Your task to perform on an android device: open app "PUBG MOBILE" (install if not already installed), go to login, and select forgot password Image 0: 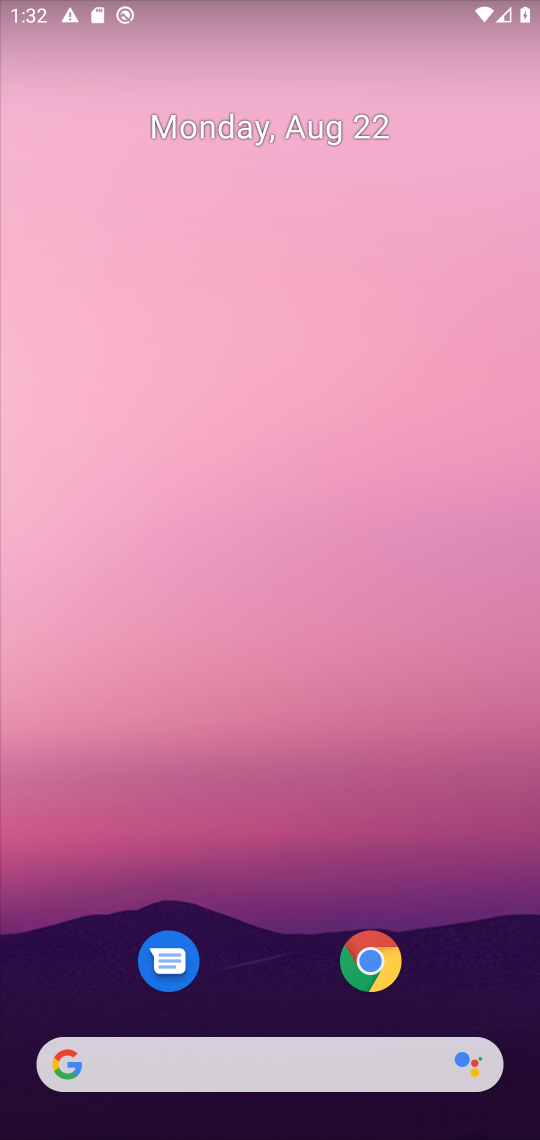
Step 0: press home button
Your task to perform on an android device: open app "PUBG MOBILE" (install if not already installed), go to login, and select forgot password Image 1: 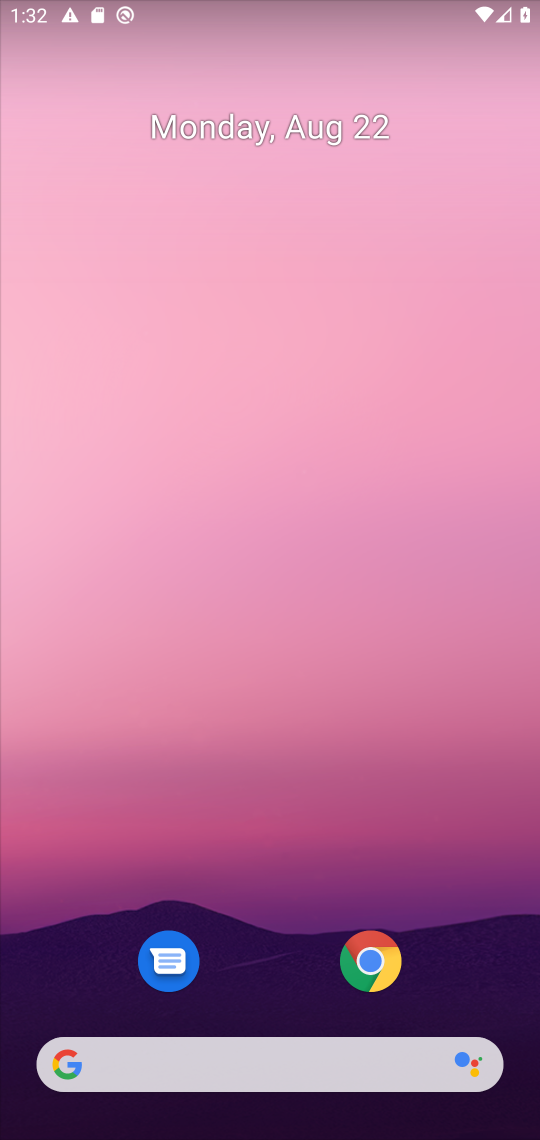
Step 1: drag from (460, 951) to (466, 142)
Your task to perform on an android device: open app "PUBG MOBILE" (install if not already installed), go to login, and select forgot password Image 2: 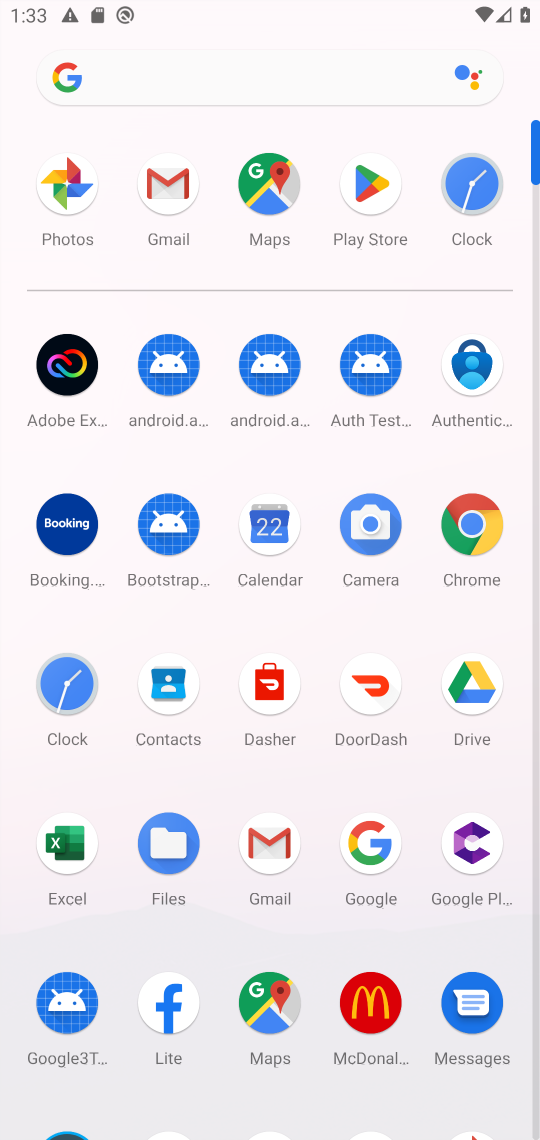
Step 2: click (373, 189)
Your task to perform on an android device: open app "PUBG MOBILE" (install if not already installed), go to login, and select forgot password Image 3: 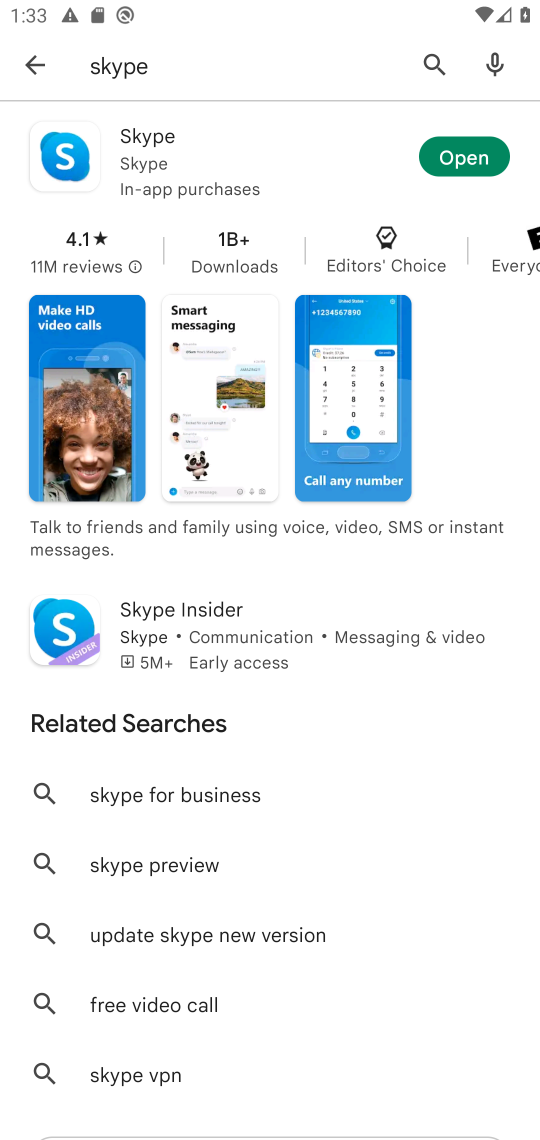
Step 3: press back button
Your task to perform on an android device: open app "PUBG MOBILE" (install if not already installed), go to login, and select forgot password Image 4: 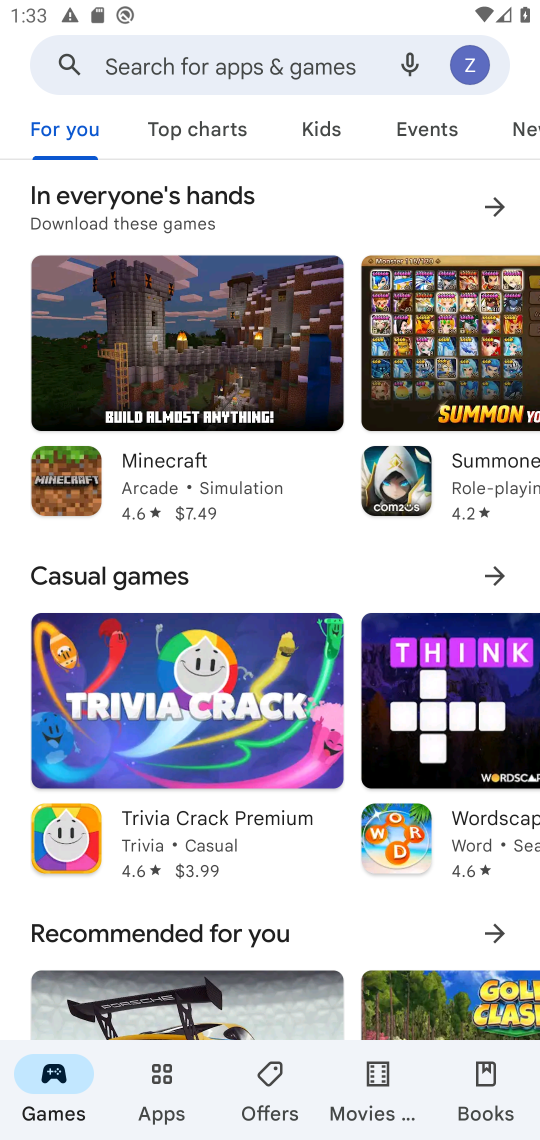
Step 4: click (270, 70)
Your task to perform on an android device: open app "PUBG MOBILE" (install if not already installed), go to login, and select forgot password Image 5: 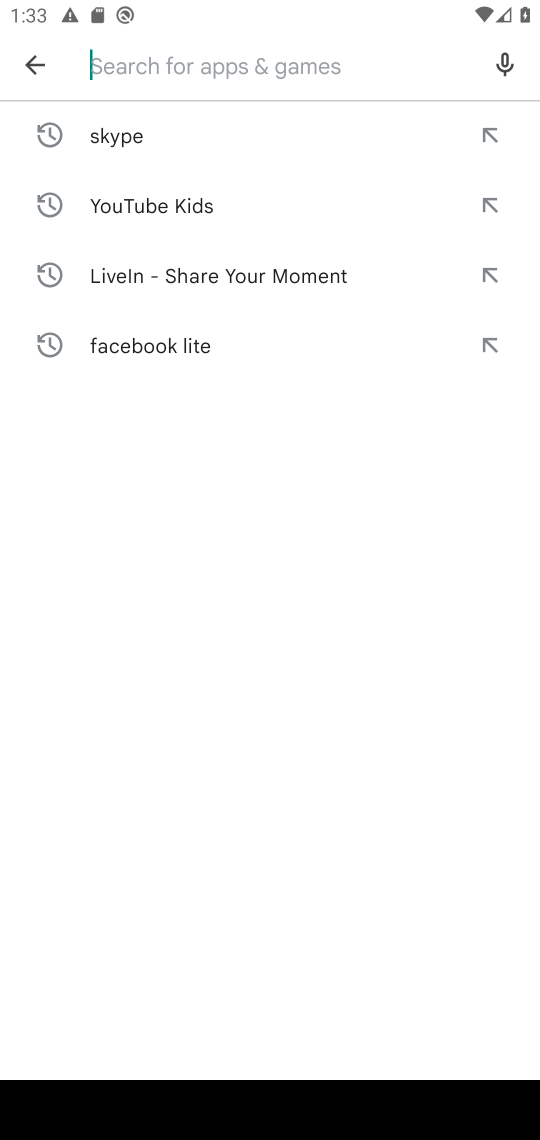
Step 5: type "PUBG MOBILE"
Your task to perform on an android device: open app "PUBG MOBILE" (install if not already installed), go to login, and select forgot password Image 6: 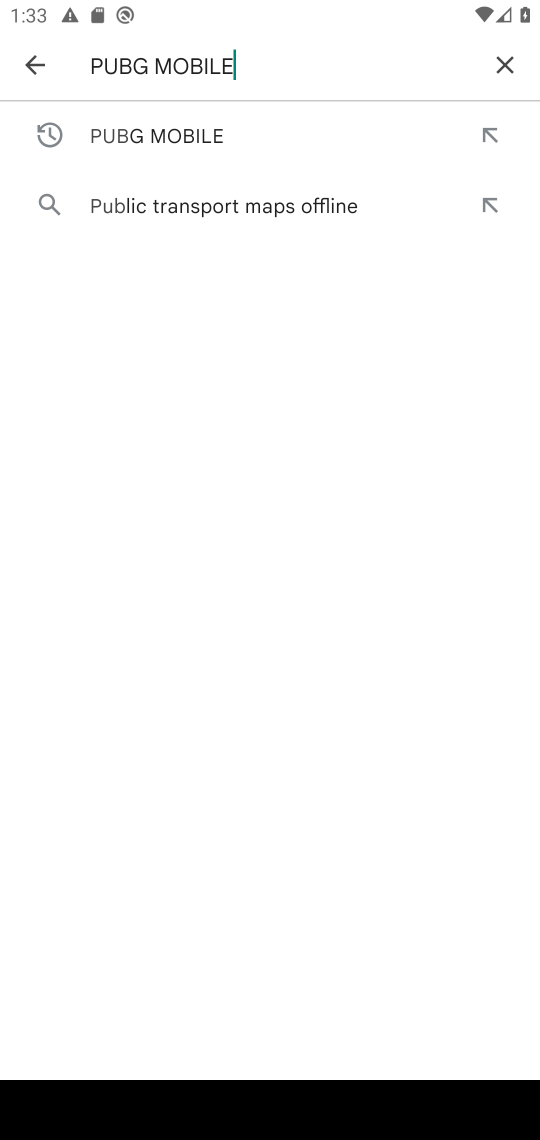
Step 6: press enter
Your task to perform on an android device: open app "PUBG MOBILE" (install if not already installed), go to login, and select forgot password Image 7: 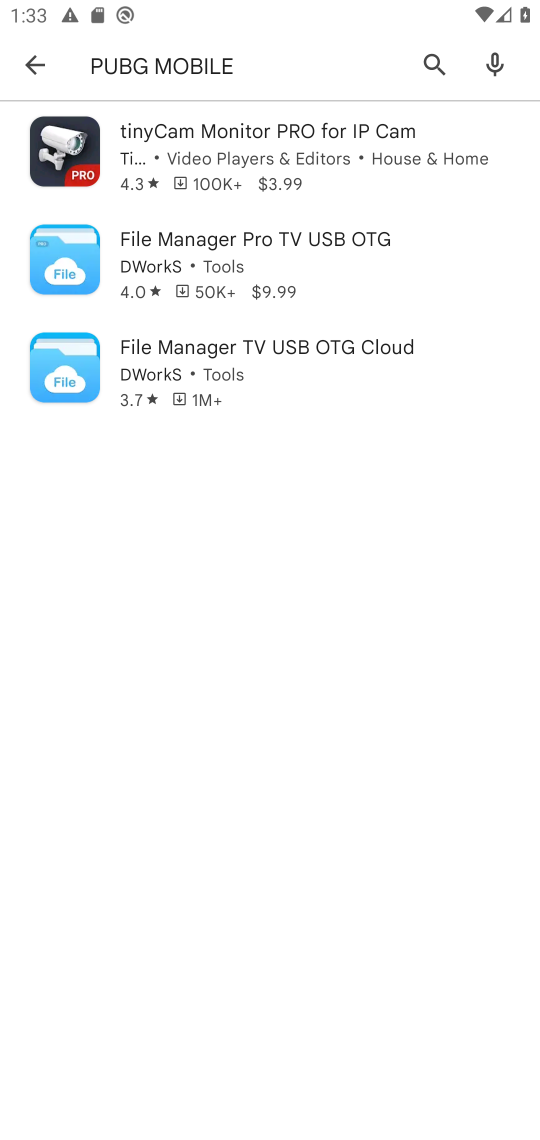
Step 7: task complete